Your task to perform on an android device: turn on notifications settings in the gmail app Image 0: 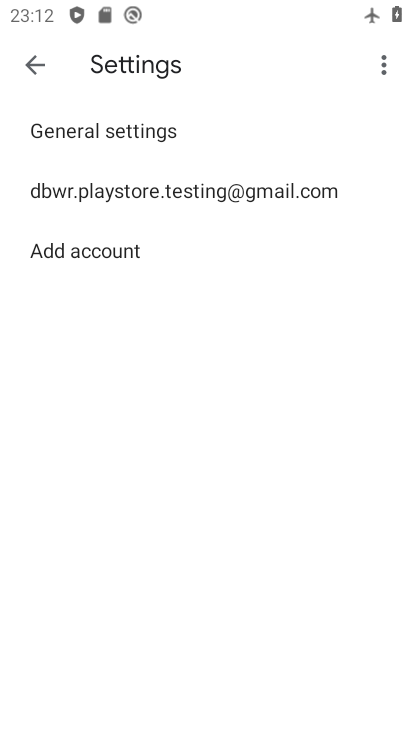
Step 0: press home button
Your task to perform on an android device: turn on notifications settings in the gmail app Image 1: 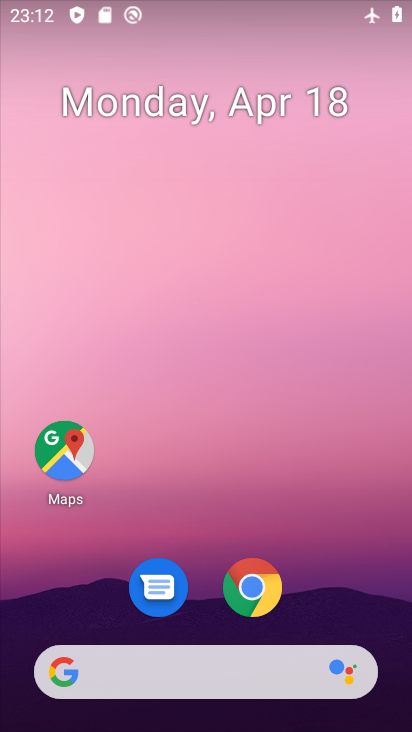
Step 1: drag from (350, 532) to (357, 105)
Your task to perform on an android device: turn on notifications settings in the gmail app Image 2: 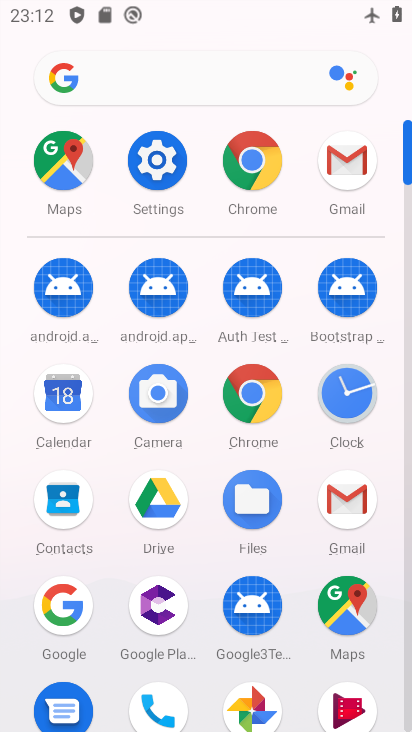
Step 2: click (342, 176)
Your task to perform on an android device: turn on notifications settings in the gmail app Image 3: 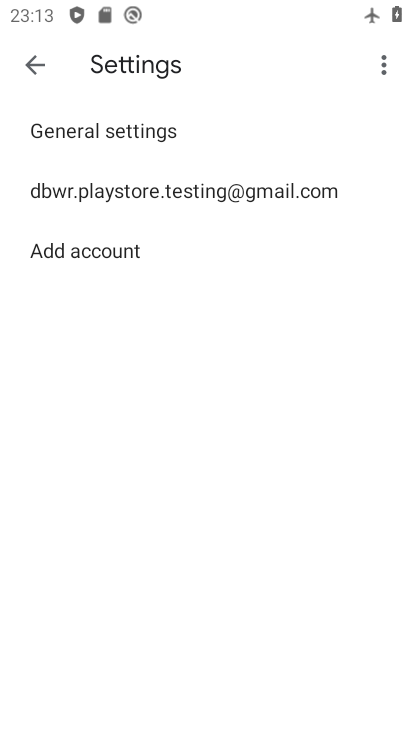
Step 3: click (307, 217)
Your task to perform on an android device: turn on notifications settings in the gmail app Image 4: 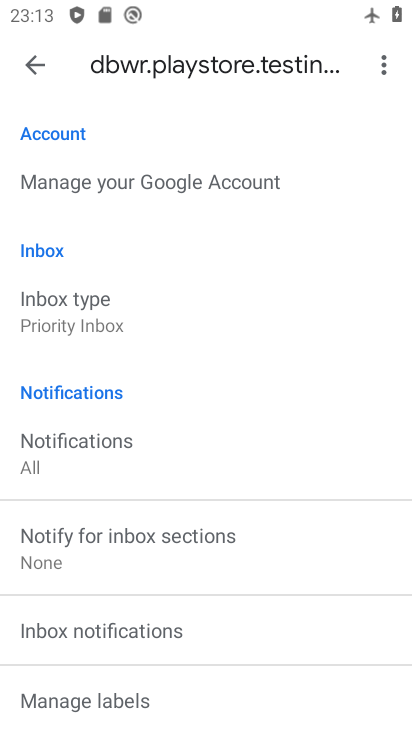
Step 4: click (103, 446)
Your task to perform on an android device: turn on notifications settings in the gmail app Image 5: 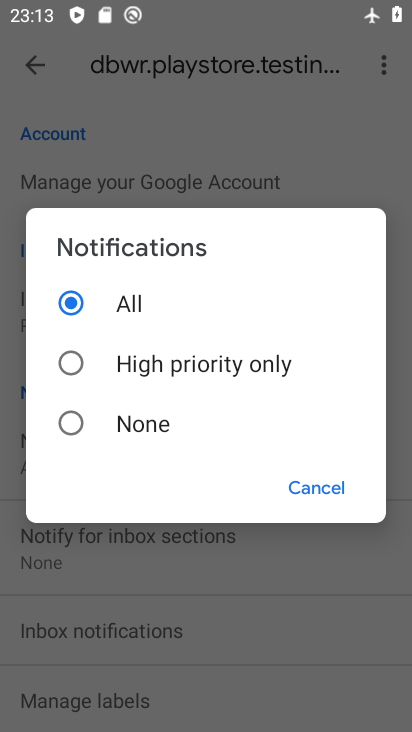
Step 5: click (317, 484)
Your task to perform on an android device: turn on notifications settings in the gmail app Image 6: 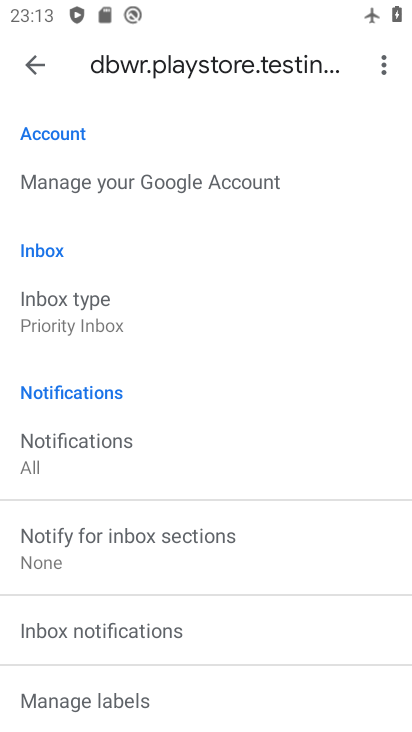
Step 6: task complete